Your task to perform on an android device: move an email to a new category in the gmail app Image 0: 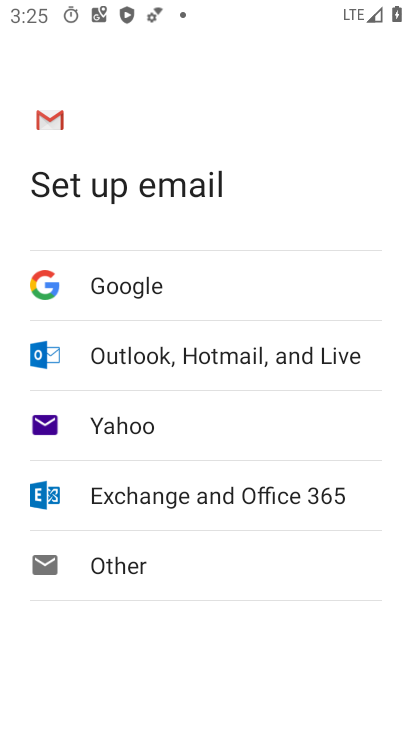
Step 0: press home button
Your task to perform on an android device: move an email to a new category in the gmail app Image 1: 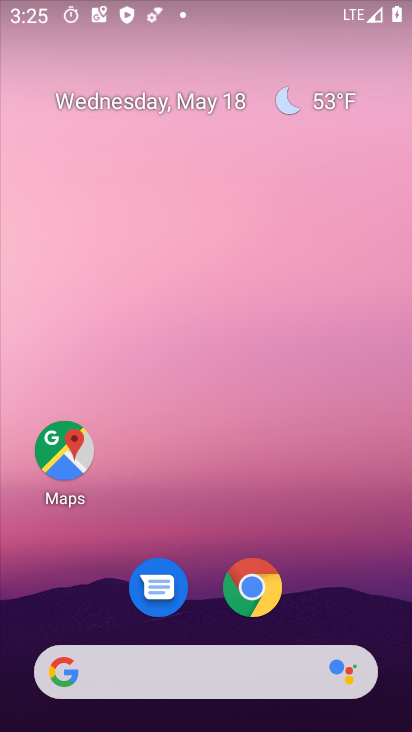
Step 1: drag from (292, 658) to (324, 301)
Your task to perform on an android device: move an email to a new category in the gmail app Image 2: 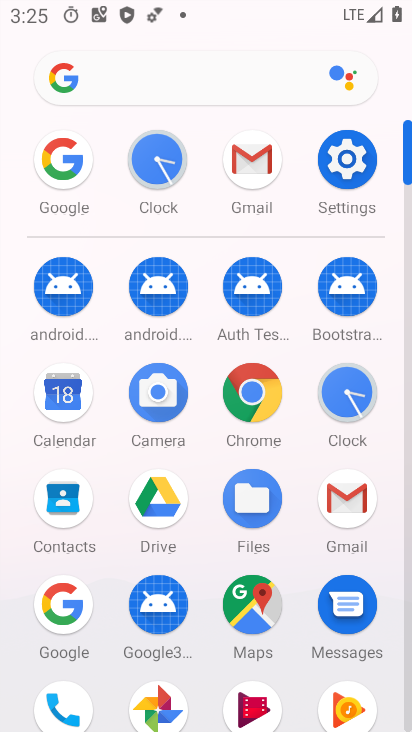
Step 2: click (338, 493)
Your task to perform on an android device: move an email to a new category in the gmail app Image 3: 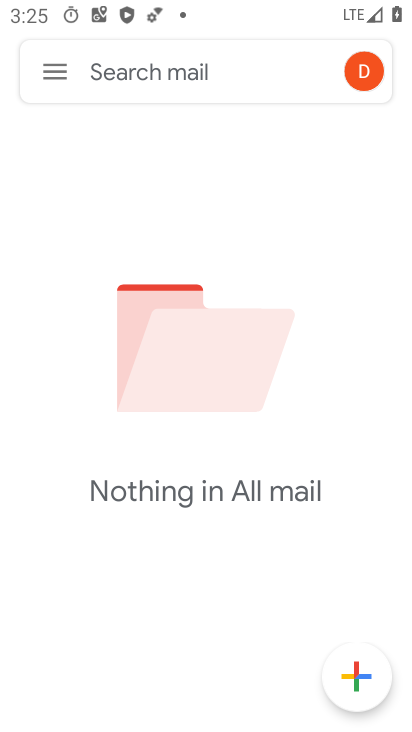
Step 3: task complete